Your task to perform on an android device: check battery use Image 0: 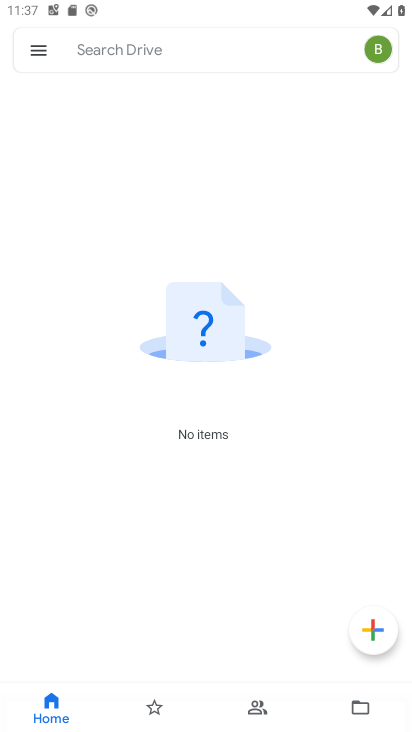
Step 0: press home button
Your task to perform on an android device: check battery use Image 1: 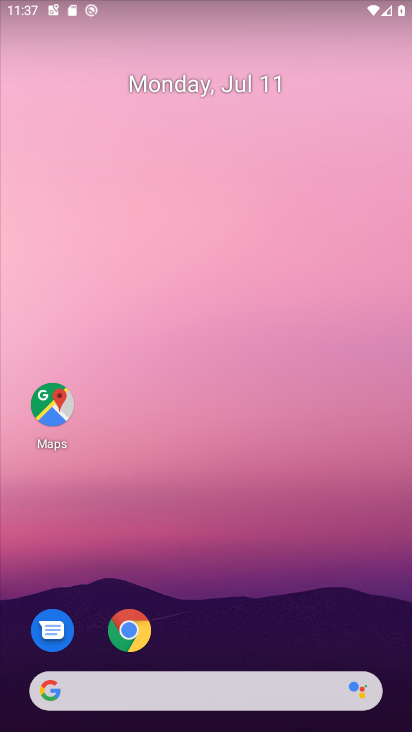
Step 1: drag from (212, 632) to (192, 75)
Your task to perform on an android device: check battery use Image 2: 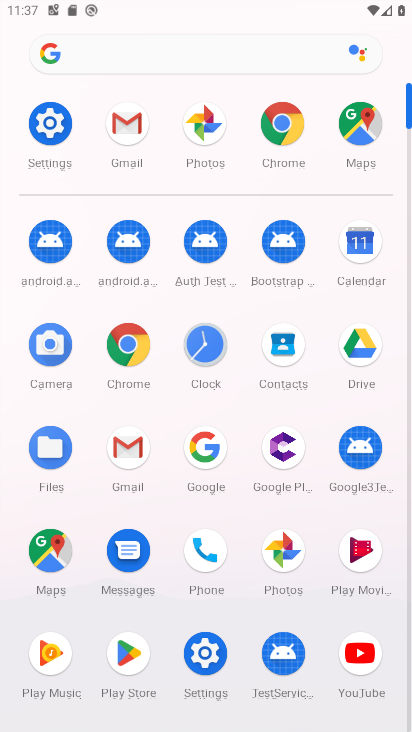
Step 2: click (207, 659)
Your task to perform on an android device: check battery use Image 3: 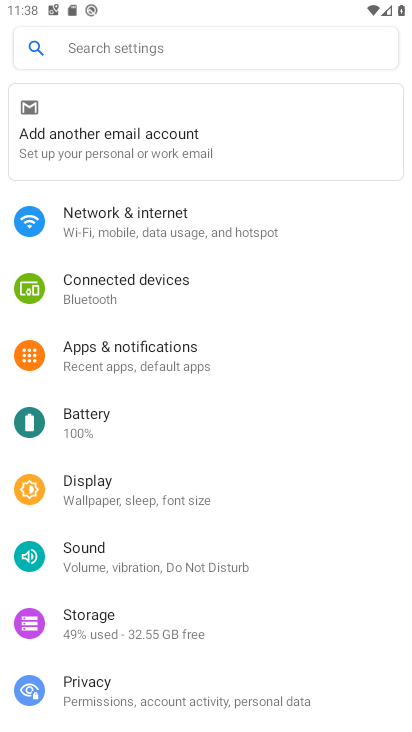
Step 3: click (107, 434)
Your task to perform on an android device: check battery use Image 4: 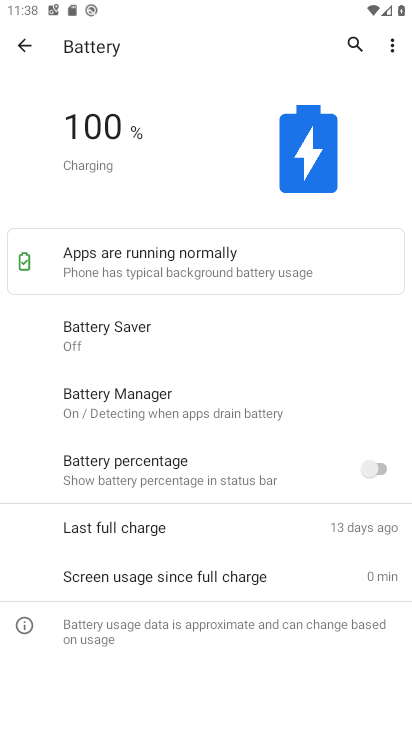
Step 4: click (393, 39)
Your task to perform on an android device: check battery use Image 5: 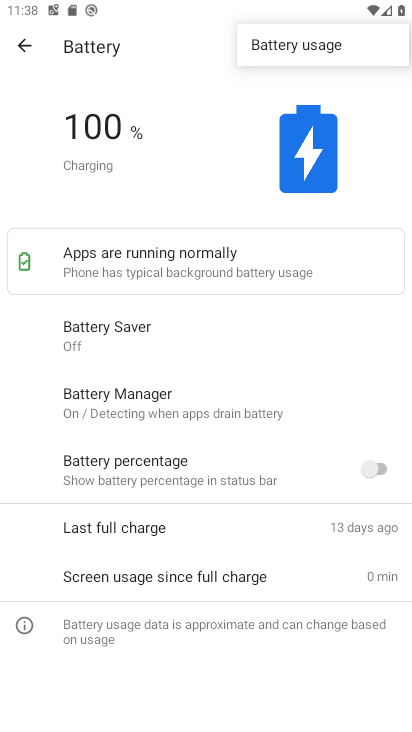
Step 5: click (355, 47)
Your task to perform on an android device: check battery use Image 6: 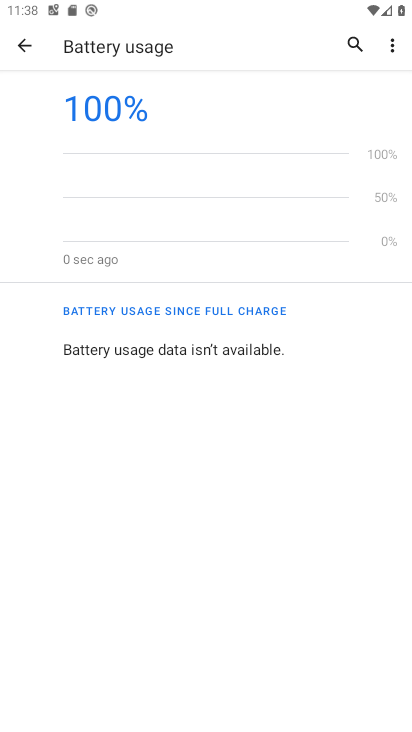
Step 6: task complete